Your task to perform on an android device: Open Android settings Image 0: 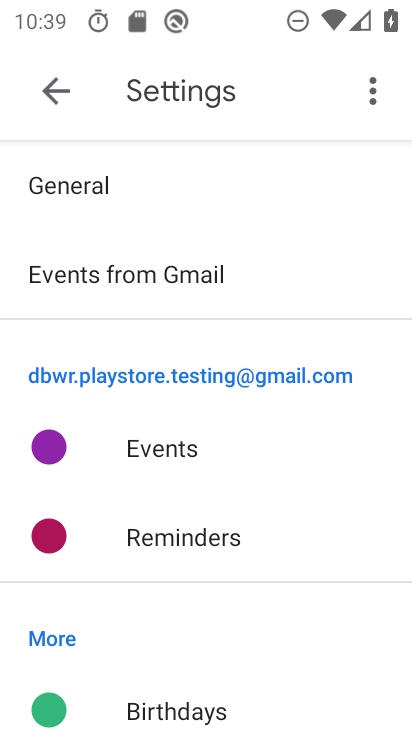
Step 0: press home button
Your task to perform on an android device: Open Android settings Image 1: 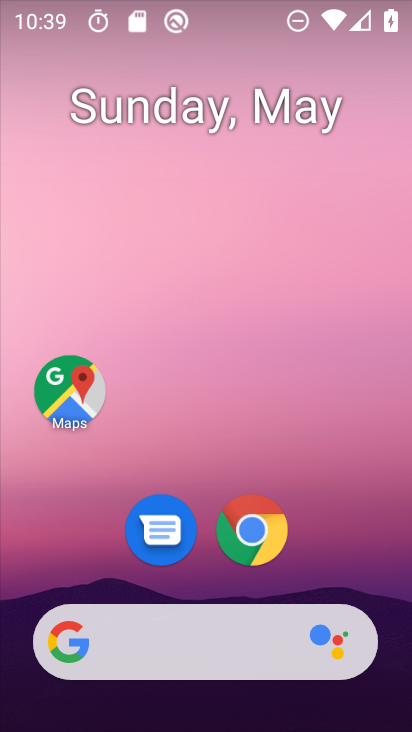
Step 1: drag from (203, 685) to (267, 84)
Your task to perform on an android device: Open Android settings Image 2: 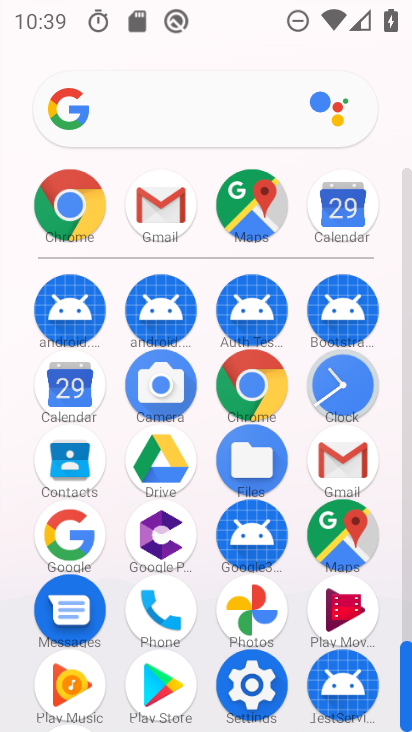
Step 2: click (238, 694)
Your task to perform on an android device: Open Android settings Image 3: 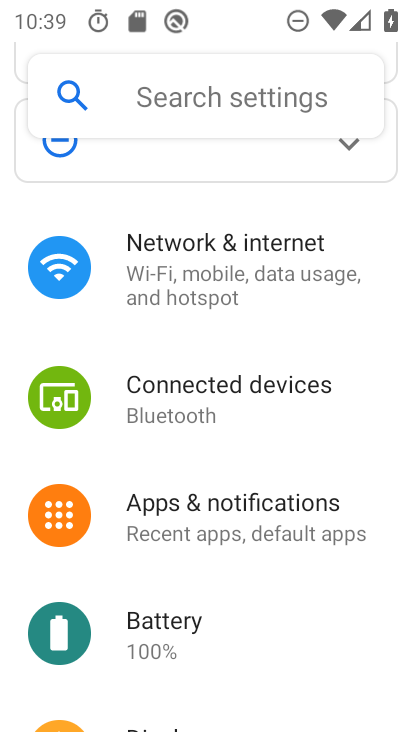
Step 3: click (189, 89)
Your task to perform on an android device: Open Android settings Image 4: 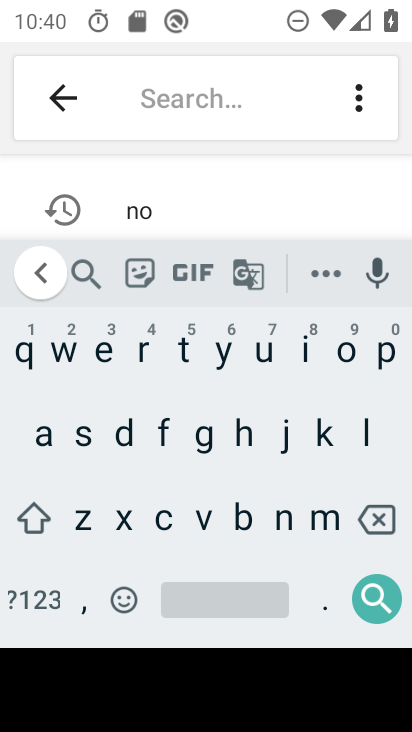
Step 4: click (39, 439)
Your task to perform on an android device: Open Android settings Image 5: 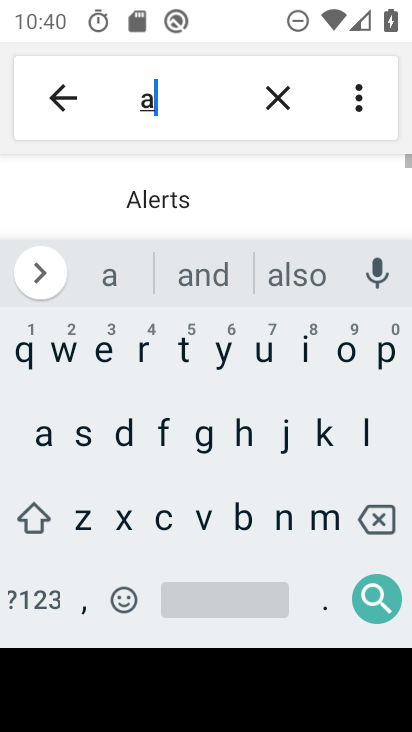
Step 5: click (285, 528)
Your task to perform on an android device: Open Android settings Image 6: 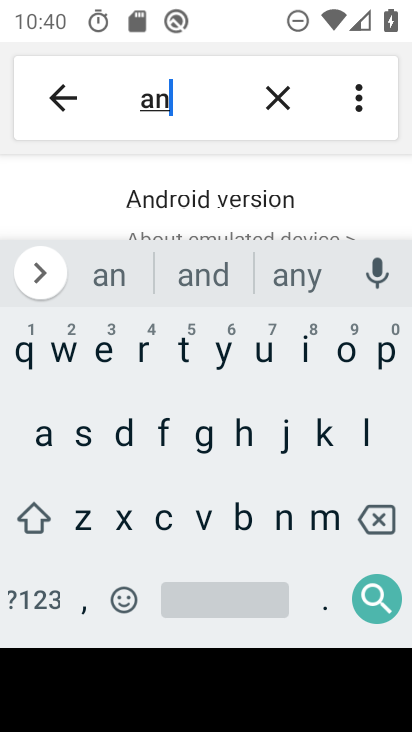
Step 6: click (220, 207)
Your task to perform on an android device: Open Android settings Image 7: 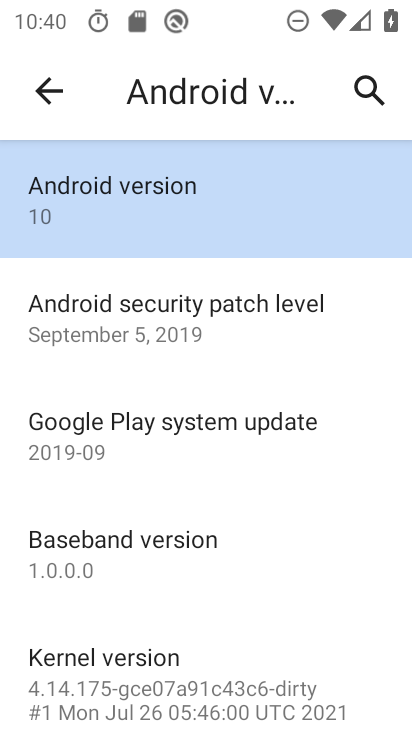
Step 7: click (215, 206)
Your task to perform on an android device: Open Android settings Image 8: 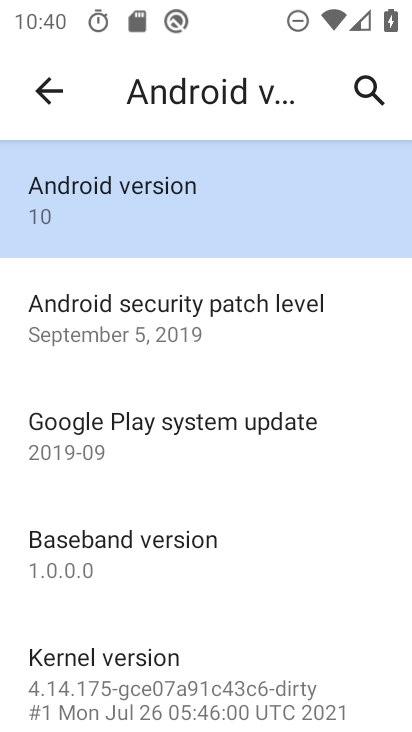
Step 8: task complete